Your task to perform on an android device: make emails show in primary in the gmail app Image 0: 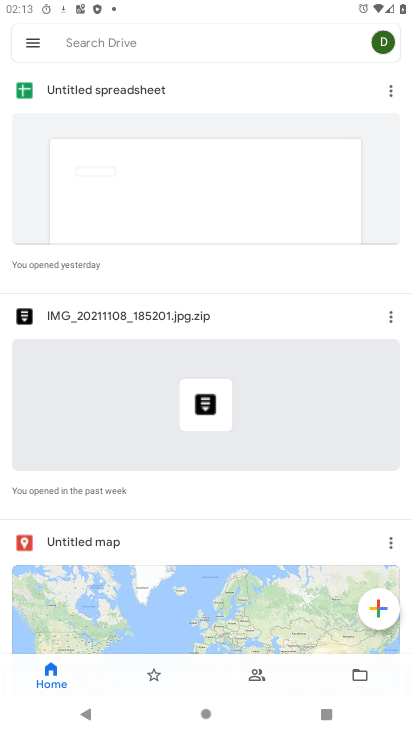
Step 0: press home button
Your task to perform on an android device: make emails show in primary in the gmail app Image 1: 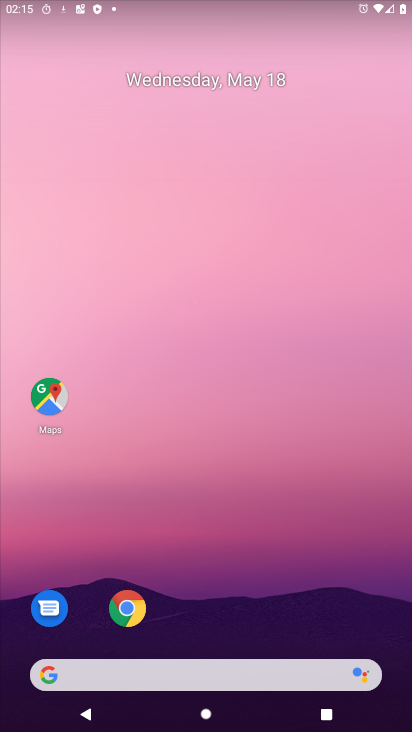
Step 1: drag from (244, 678) to (229, 244)
Your task to perform on an android device: make emails show in primary in the gmail app Image 2: 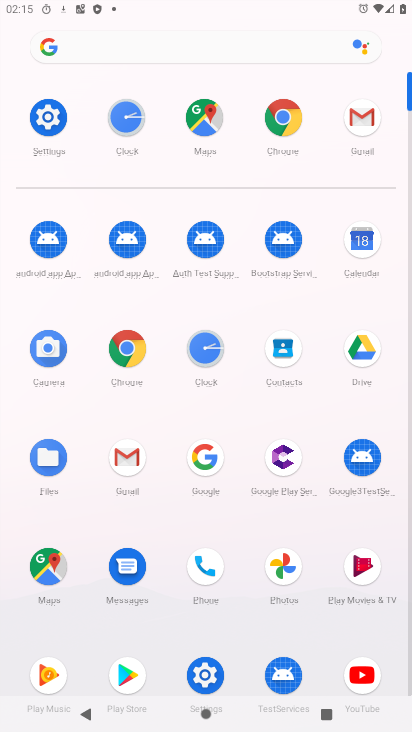
Step 2: click (133, 466)
Your task to perform on an android device: make emails show in primary in the gmail app Image 3: 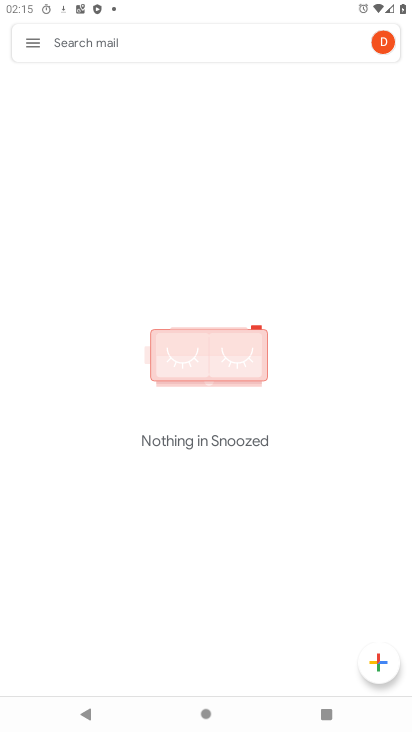
Step 3: click (30, 43)
Your task to perform on an android device: make emails show in primary in the gmail app Image 4: 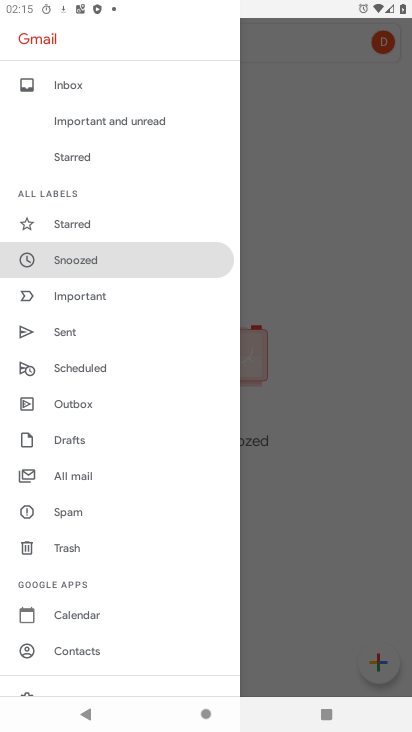
Step 4: drag from (78, 646) to (86, 572)
Your task to perform on an android device: make emails show in primary in the gmail app Image 5: 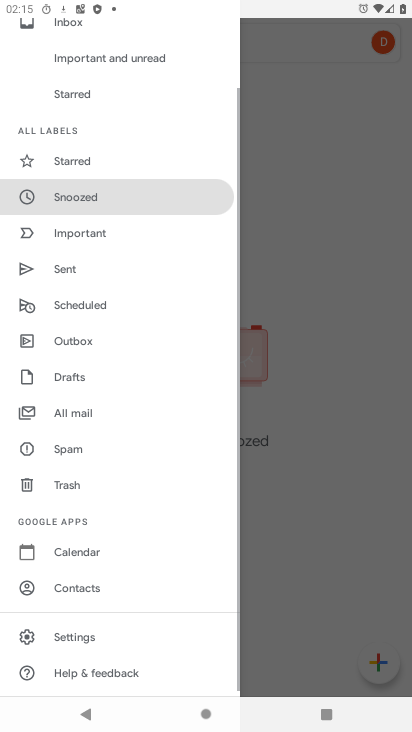
Step 5: click (80, 627)
Your task to perform on an android device: make emails show in primary in the gmail app Image 6: 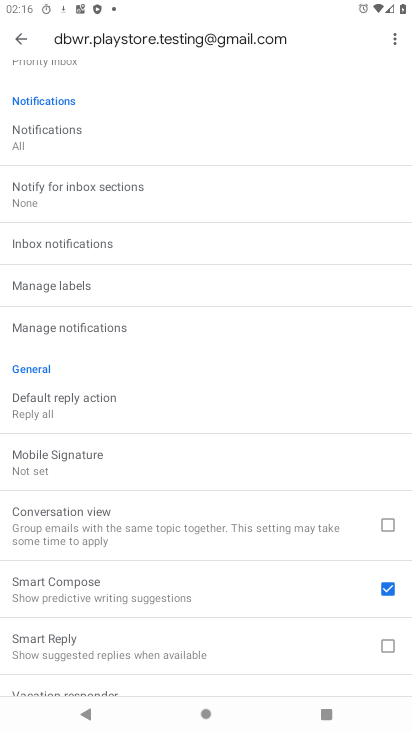
Step 6: drag from (78, 130) to (67, 320)
Your task to perform on an android device: make emails show in primary in the gmail app Image 7: 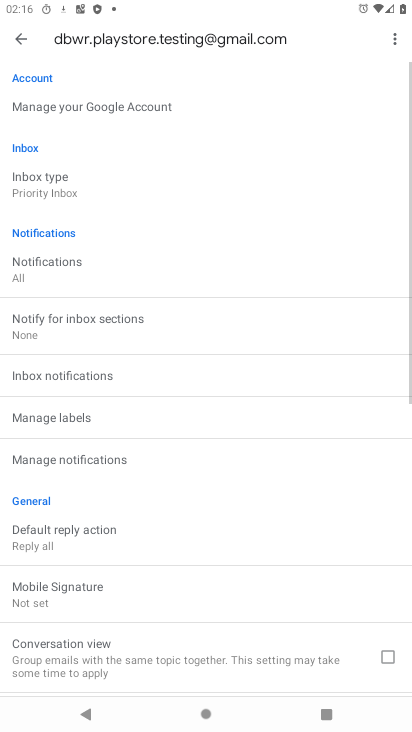
Step 7: click (80, 193)
Your task to perform on an android device: make emails show in primary in the gmail app Image 8: 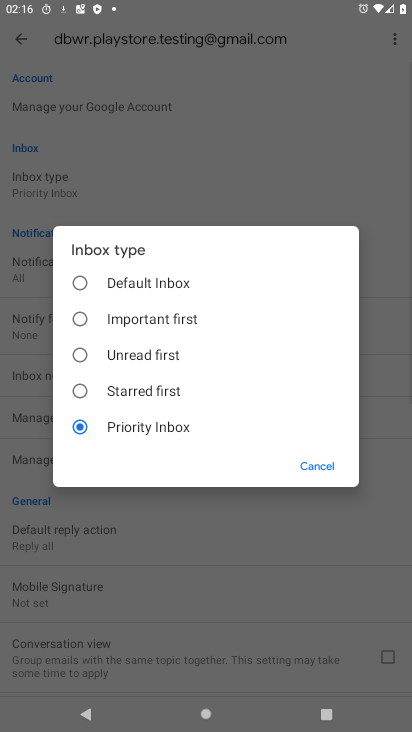
Step 8: click (122, 287)
Your task to perform on an android device: make emails show in primary in the gmail app Image 9: 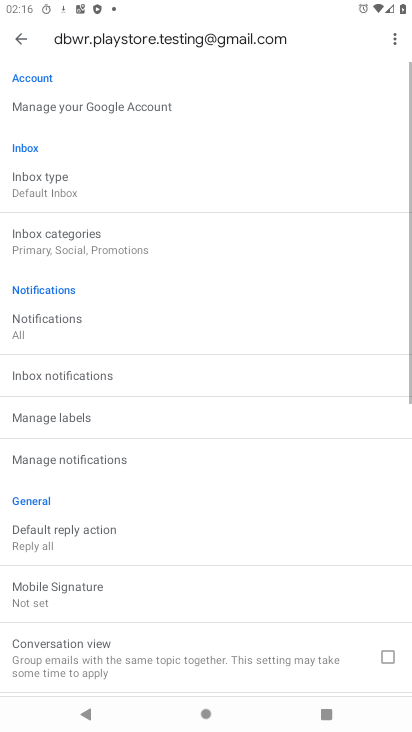
Step 9: click (67, 245)
Your task to perform on an android device: make emails show in primary in the gmail app Image 10: 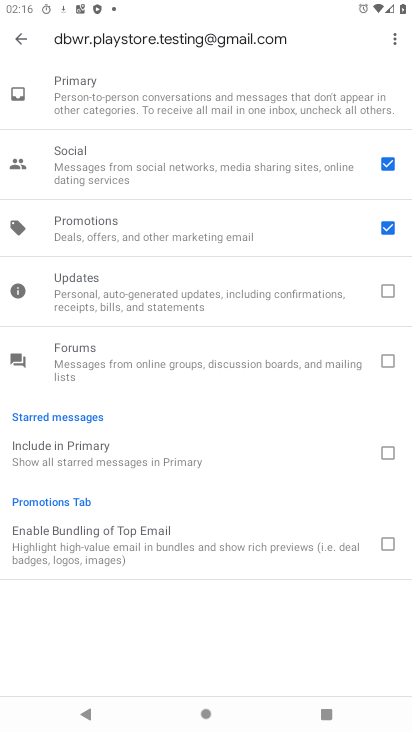
Step 10: click (194, 107)
Your task to perform on an android device: make emails show in primary in the gmail app Image 11: 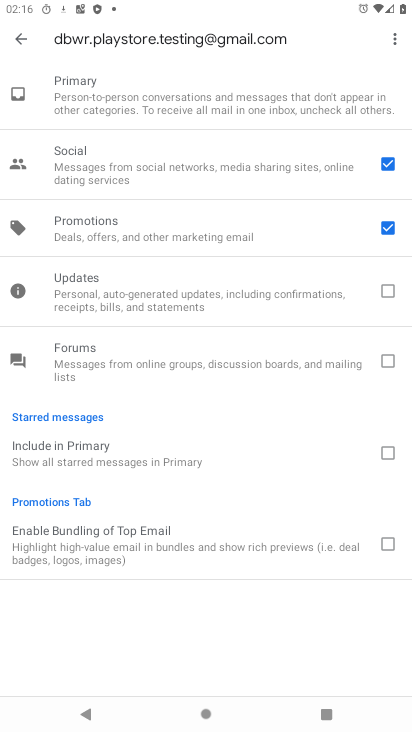
Step 11: task complete